Your task to perform on an android device: Open display settings Image 0: 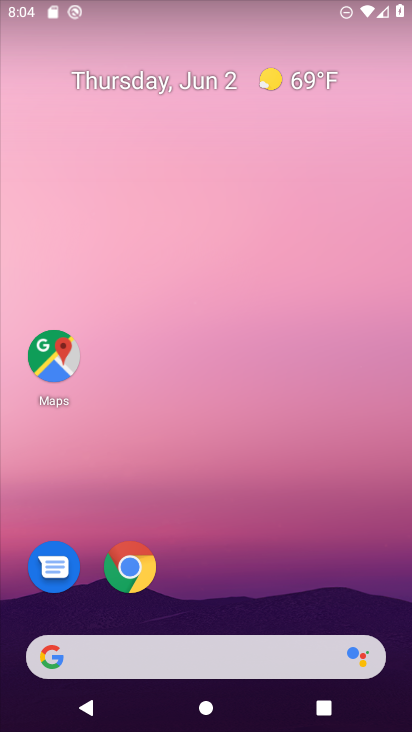
Step 0: drag from (386, 600) to (244, 89)
Your task to perform on an android device: Open display settings Image 1: 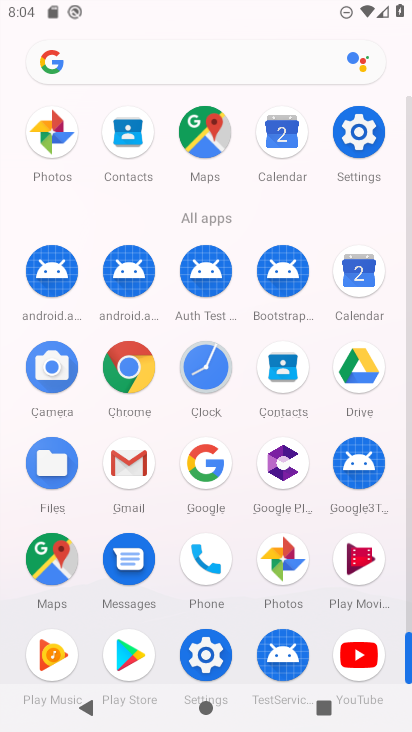
Step 1: click (207, 650)
Your task to perform on an android device: Open display settings Image 2: 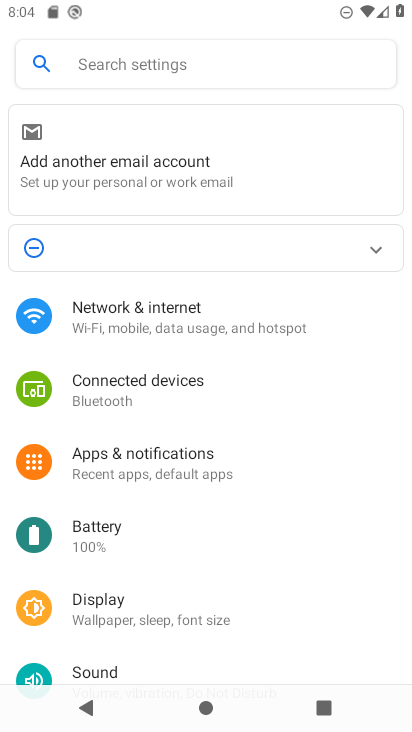
Step 2: click (97, 600)
Your task to perform on an android device: Open display settings Image 3: 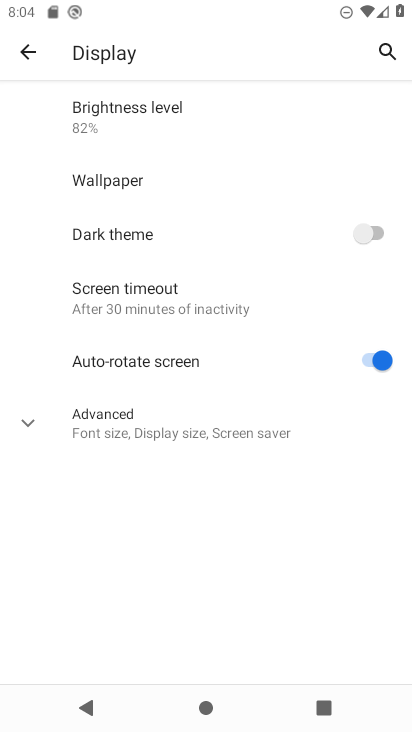
Step 3: click (24, 418)
Your task to perform on an android device: Open display settings Image 4: 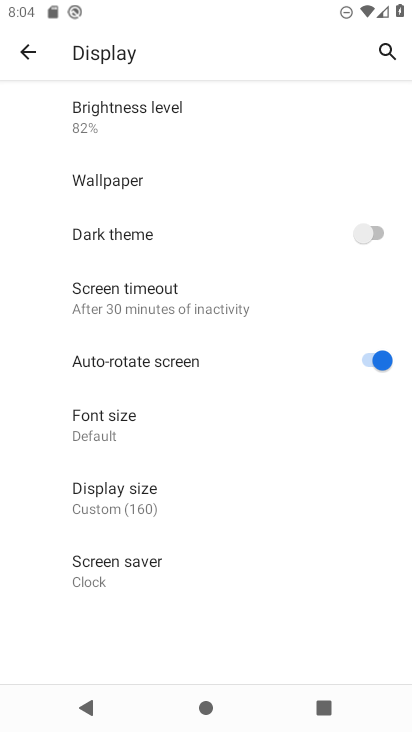
Step 4: task complete